Your task to perform on an android device: Do I have any events today? Image 0: 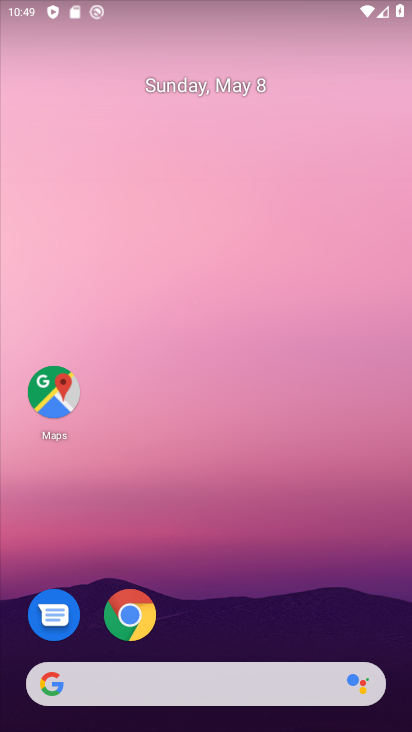
Step 0: drag from (229, 610) to (324, 122)
Your task to perform on an android device: Do I have any events today? Image 1: 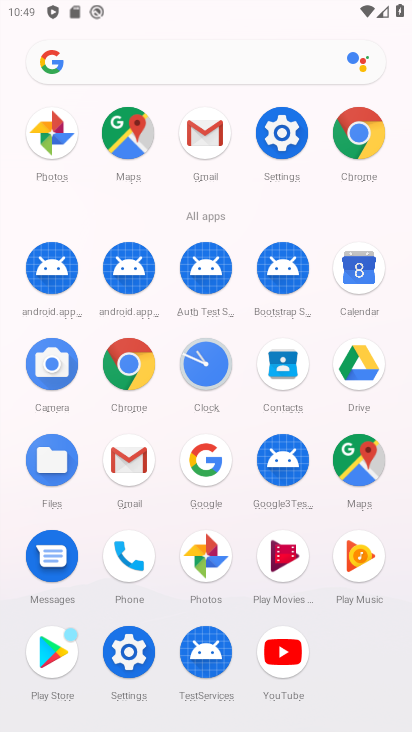
Step 1: click (384, 268)
Your task to perform on an android device: Do I have any events today? Image 2: 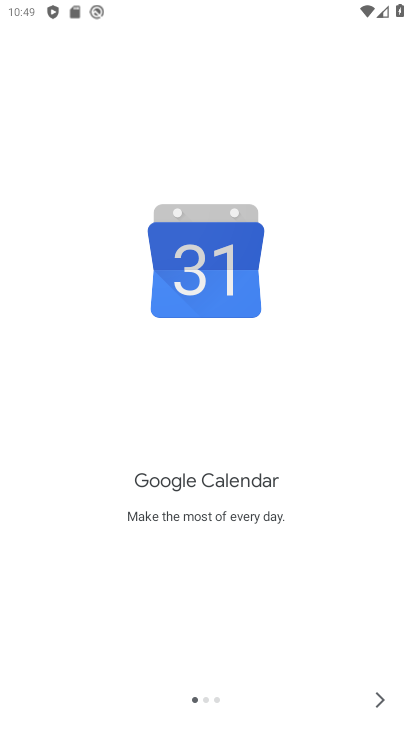
Step 2: click (378, 693)
Your task to perform on an android device: Do I have any events today? Image 3: 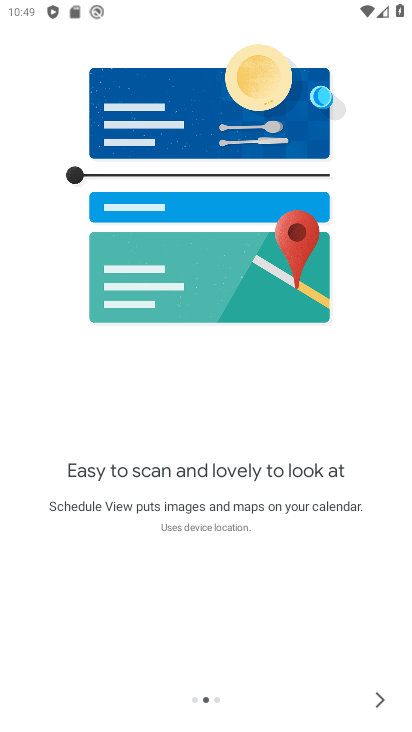
Step 3: click (378, 693)
Your task to perform on an android device: Do I have any events today? Image 4: 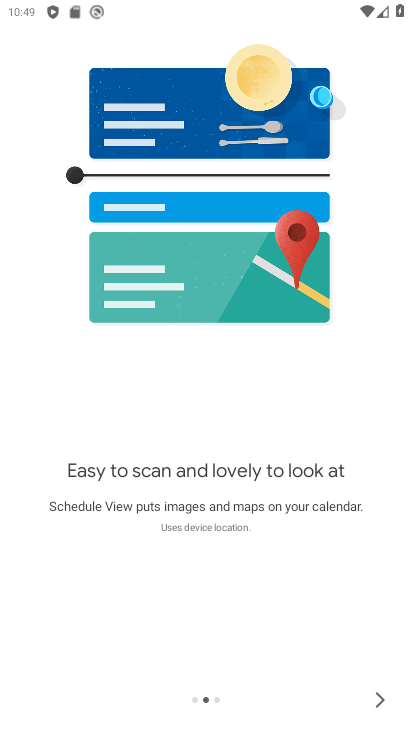
Step 4: click (378, 693)
Your task to perform on an android device: Do I have any events today? Image 5: 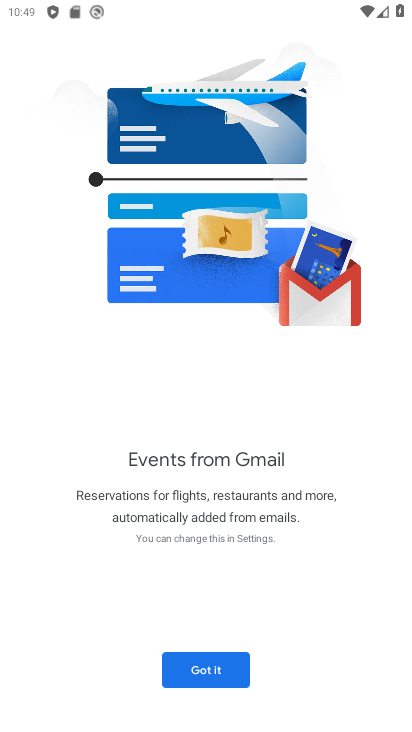
Step 5: click (188, 664)
Your task to perform on an android device: Do I have any events today? Image 6: 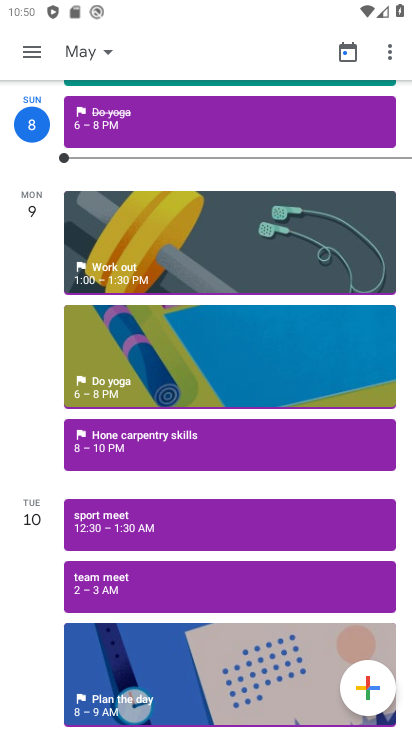
Step 6: click (147, 449)
Your task to perform on an android device: Do I have any events today? Image 7: 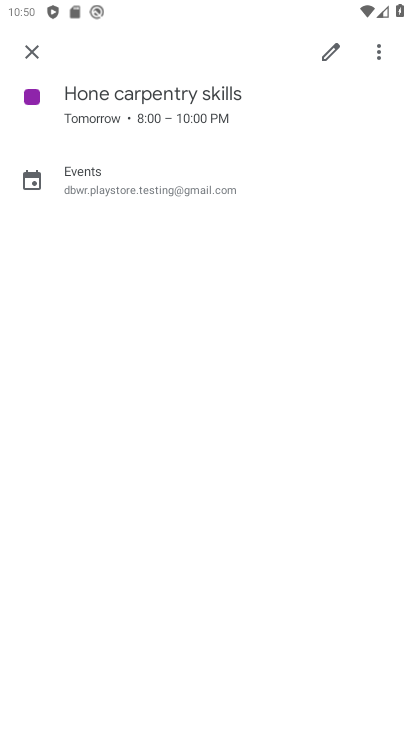
Step 7: task complete